Your task to perform on an android device: star an email in the gmail app Image 0: 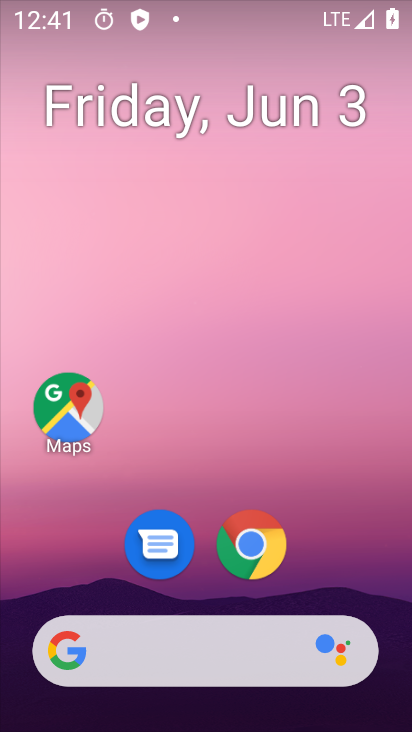
Step 0: drag from (319, 566) to (311, 9)
Your task to perform on an android device: star an email in the gmail app Image 1: 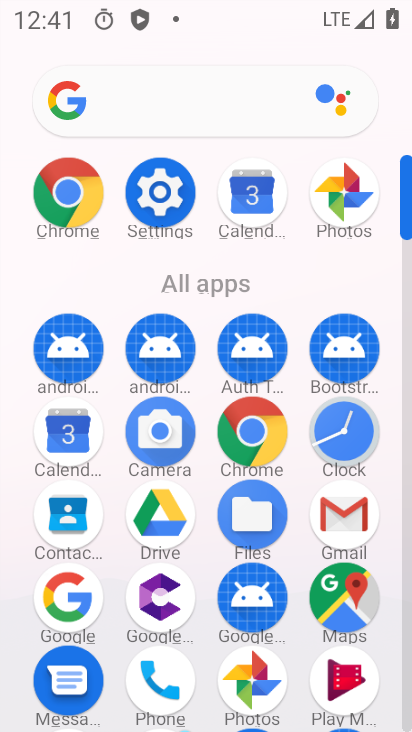
Step 1: click (348, 507)
Your task to perform on an android device: star an email in the gmail app Image 2: 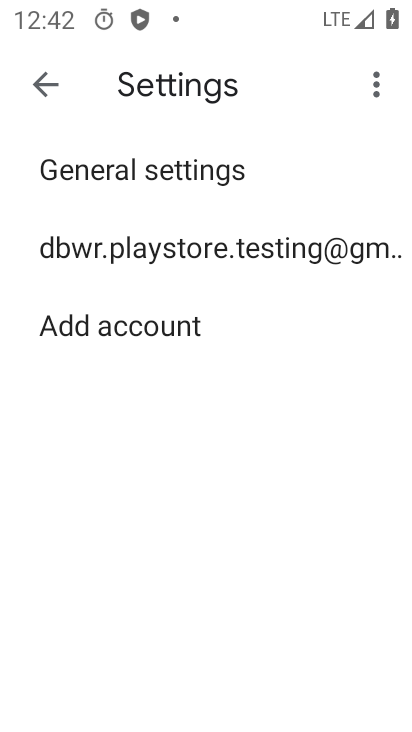
Step 2: click (39, 85)
Your task to perform on an android device: star an email in the gmail app Image 3: 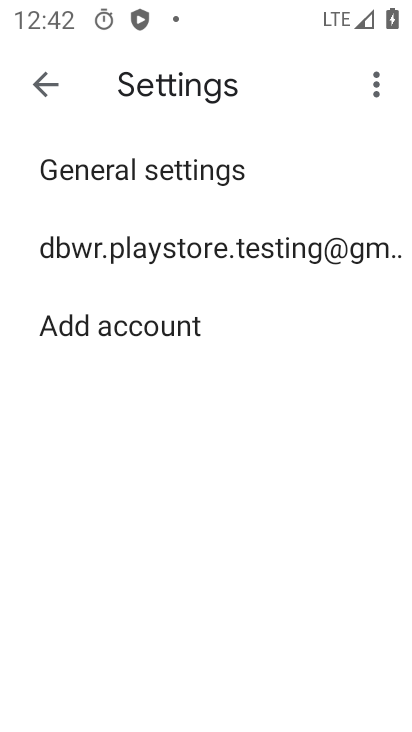
Step 3: click (35, 88)
Your task to perform on an android device: star an email in the gmail app Image 4: 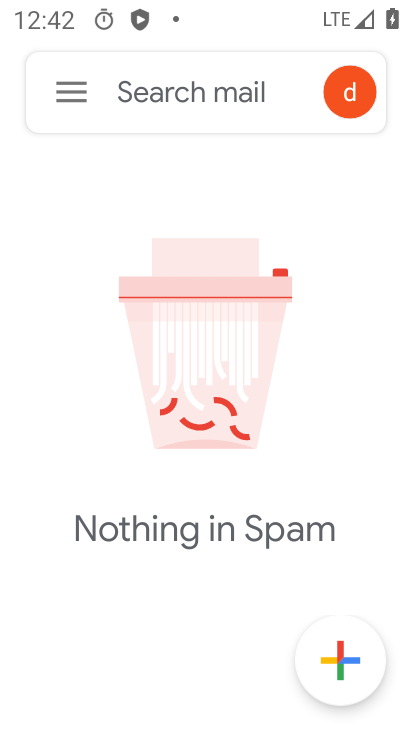
Step 4: click (54, 87)
Your task to perform on an android device: star an email in the gmail app Image 5: 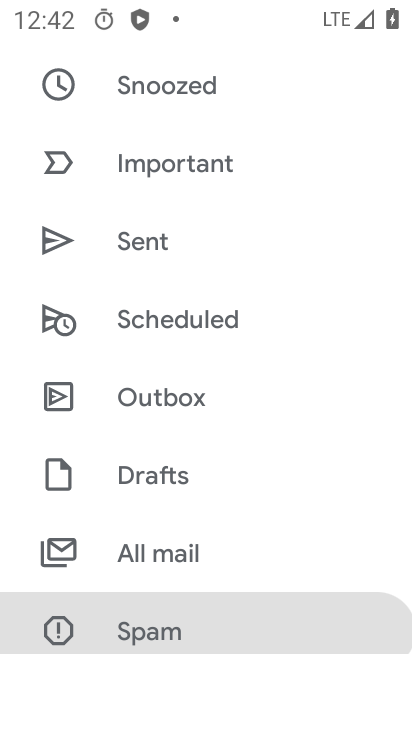
Step 5: click (197, 553)
Your task to perform on an android device: star an email in the gmail app Image 6: 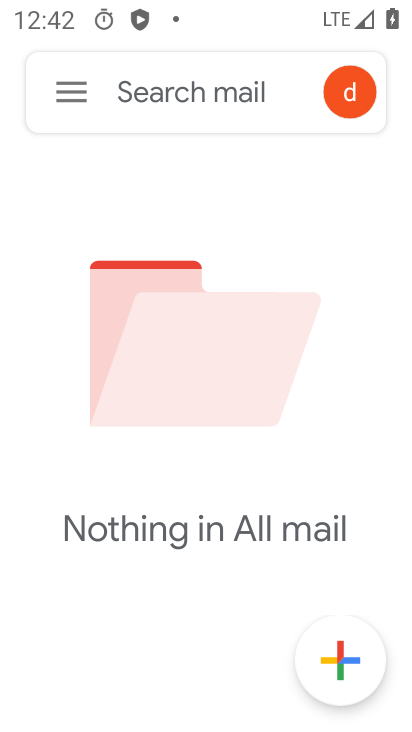
Step 6: task complete